Your task to perform on an android device: Open maps Image 0: 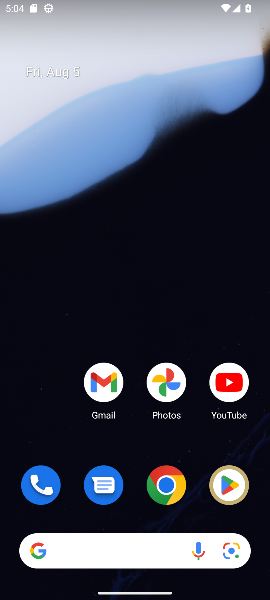
Step 0: drag from (135, 453) to (130, 26)
Your task to perform on an android device: Open maps Image 1: 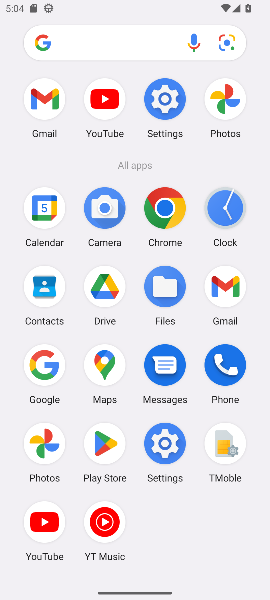
Step 1: drag from (204, 523) to (202, 457)
Your task to perform on an android device: Open maps Image 2: 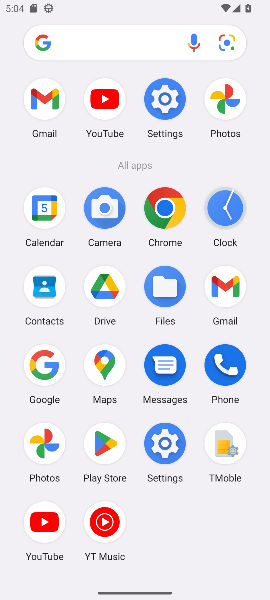
Step 2: click (106, 364)
Your task to perform on an android device: Open maps Image 3: 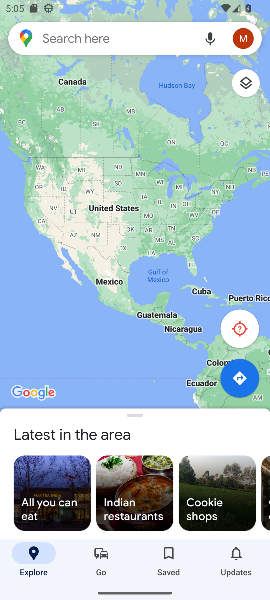
Step 3: task complete